Your task to perform on an android device: Search for a 3D printer on aliexpress. Image 0: 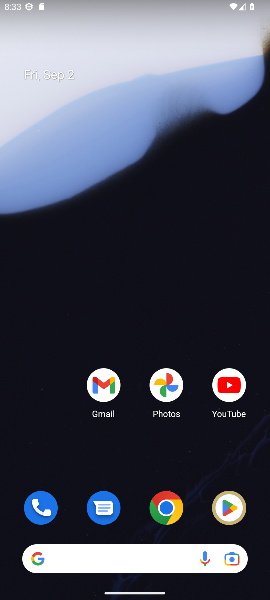
Step 0: drag from (141, 513) to (244, 261)
Your task to perform on an android device: Search for a 3D printer on aliexpress. Image 1: 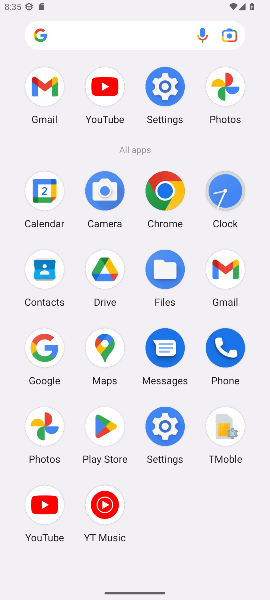
Step 1: click (159, 201)
Your task to perform on an android device: Search for a 3D printer on aliexpress. Image 2: 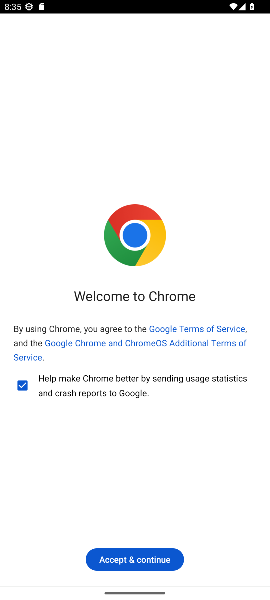
Step 2: click (144, 554)
Your task to perform on an android device: Search for a 3D printer on aliexpress. Image 3: 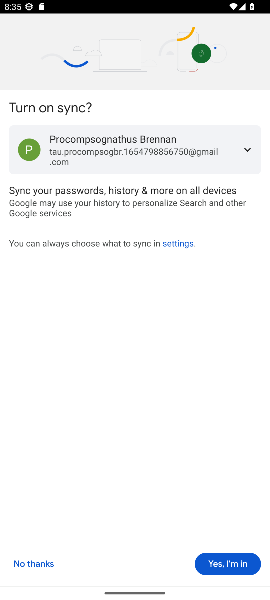
Step 3: click (216, 564)
Your task to perform on an android device: Search for a 3D printer on aliexpress. Image 4: 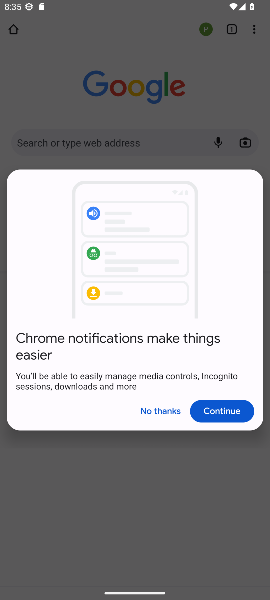
Step 4: click (219, 411)
Your task to perform on an android device: Search for a 3D printer on aliexpress. Image 5: 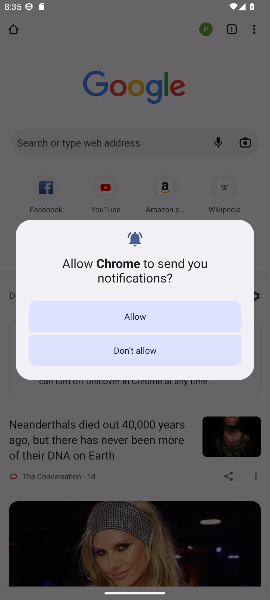
Step 5: click (155, 318)
Your task to perform on an android device: Search for a 3D printer on aliexpress. Image 6: 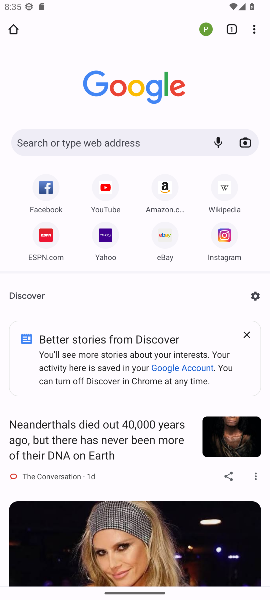
Step 6: click (174, 136)
Your task to perform on an android device: Search for a 3D printer on aliexpress. Image 7: 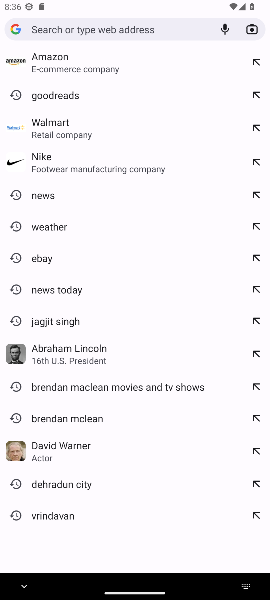
Step 7: type "aliexpress"
Your task to perform on an android device: Search for a 3D printer on aliexpress. Image 8: 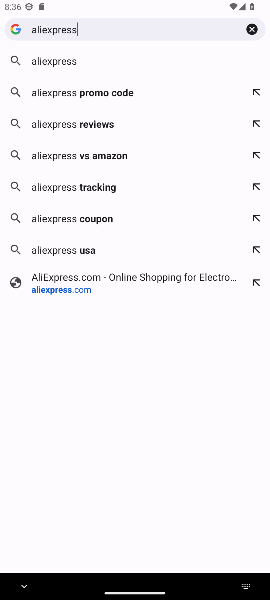
Step 8: click (50, 62)
Your task to perform on an android device: Search for a 3D printer on aliexpress. Image 9: 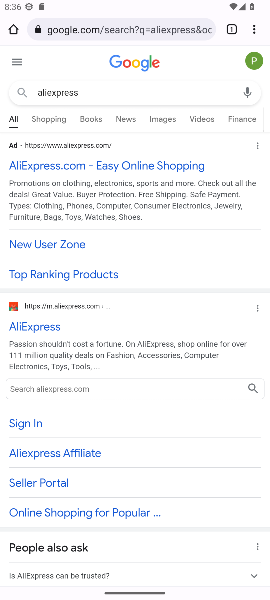
Step 9: click (84, 164)
Your task to perform on an android device: Search for a 3D printer on aliexpress. Image 10: 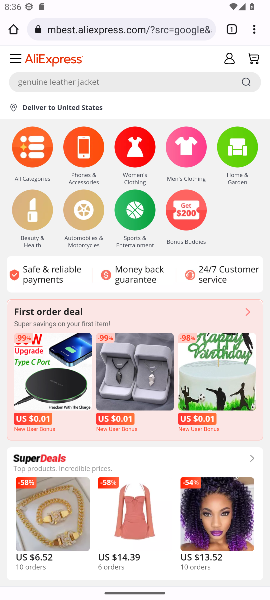
Step 10: click (114, 78)
Your task to perform on an android device: Search for a 3D printer on aliexpress. Image 11: 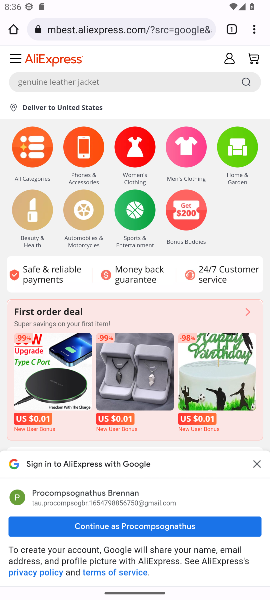
Step 11: click (114, 78)
Your task to perform on an android device: Search for a 3D printer on aliexpress. Image 12: 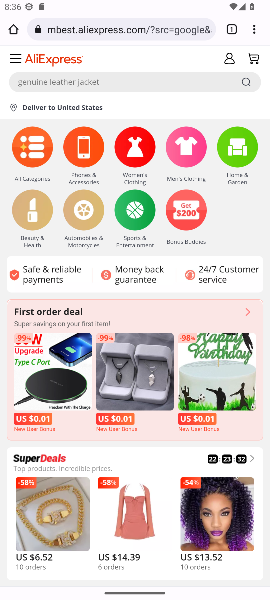
Step 12: click (114, 78)
Your task to perform on an android device: Search for a 3D printer on aliexpress. Image 13: 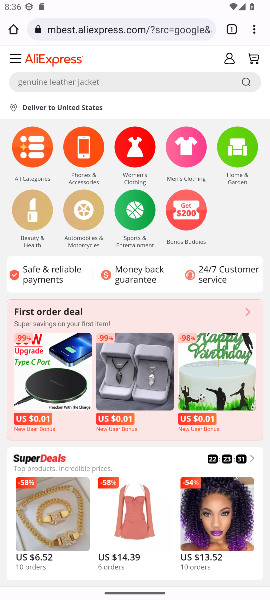
Step 13: click (114, 78)
Your task to perform on an android device: Search for a 3D printer on aliexpress. Image 14: 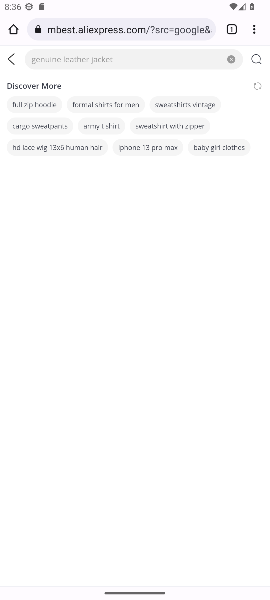
Step 14: click (78, 54)
Your task to perform on an android device: Search for a 3D printer on aliexpress. Image 15: 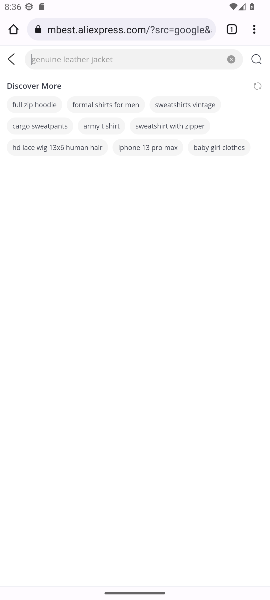
Step 15: click (78, 54)
Your task to perform on an android device: Search for a 3D printer on aliexpress. Image 16: 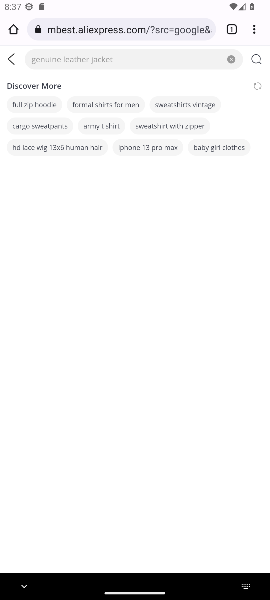
Step 16: type "3D printer"
Your task to perform on an android device: Search for a 3D printer on aliexpress. Image 17: 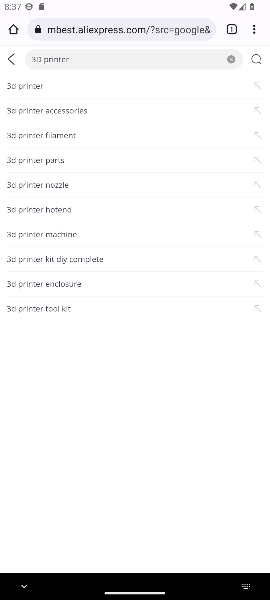
Step 17: click (16, 83)
Your task to perform on an android device: Search for a 3D printer on aliexpress. Image 18: 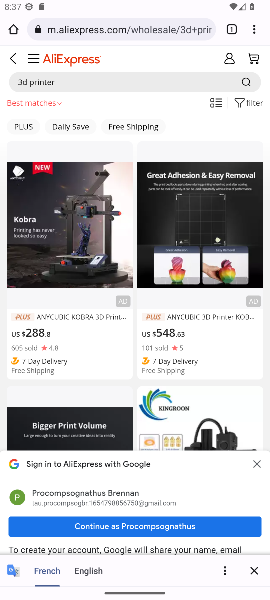
Step 18: task complete